Your task to perform on an android device: See recent photos Image 0: 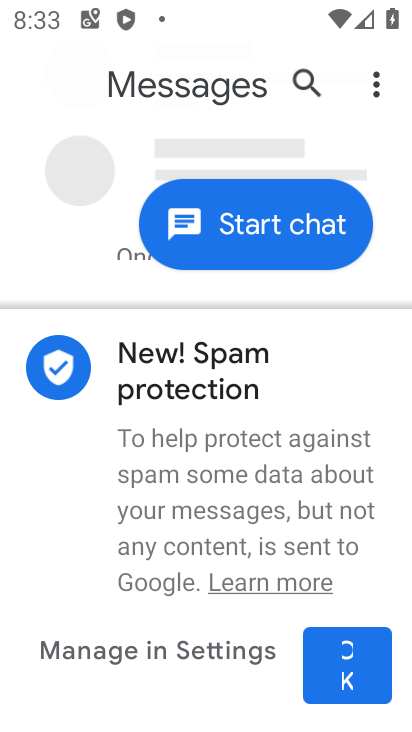
Step 0: press home button
Your task to perform on an android device: See recent photos Image 1: 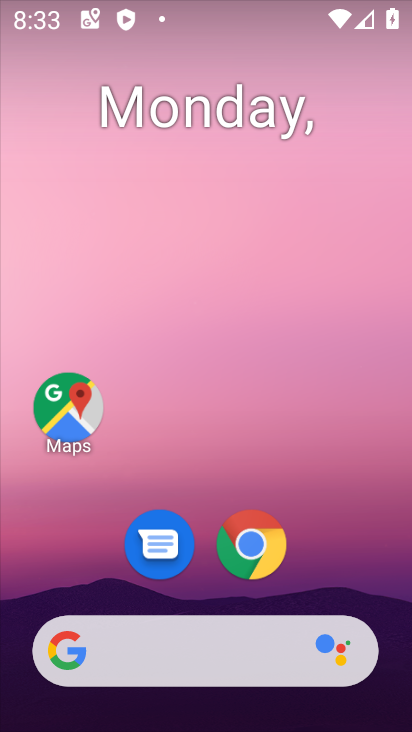
Step 1: drag from (341, 562) to (246, 56)
Your task to perform on an android device: See recent photos Image 2: 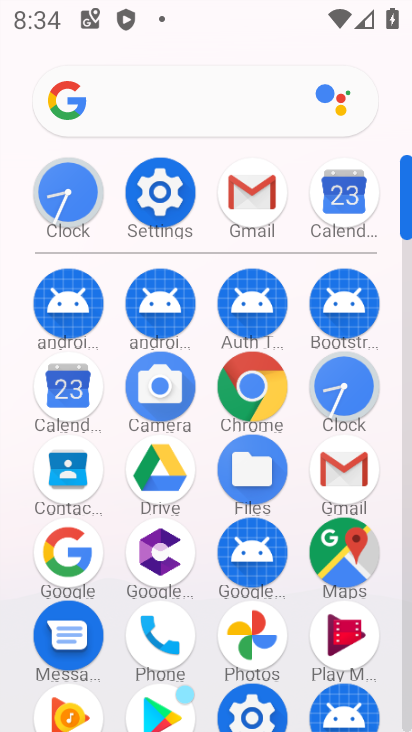
Step 2: click (233, 622)
Your task to perform on an android device: See recent photos Image 3: 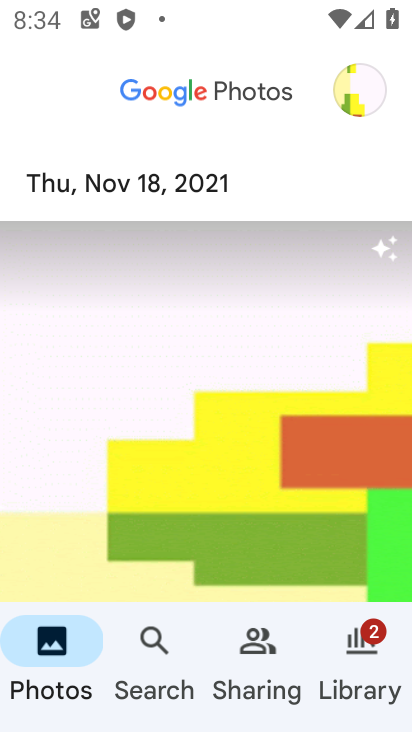
Step 3: drag from (145, 508) to (133, 198)
Your task to perform on an android device: See recent photos Image 4: 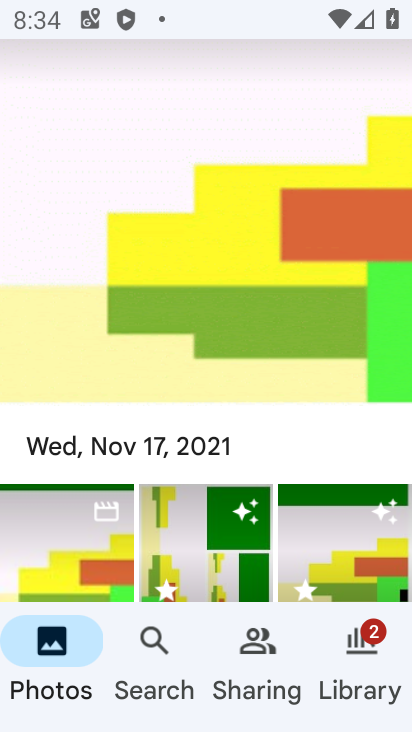
Step 4: drag from (234, 426) to (192, 49)
Your task to perform on an android device: See recent photos Image 5: 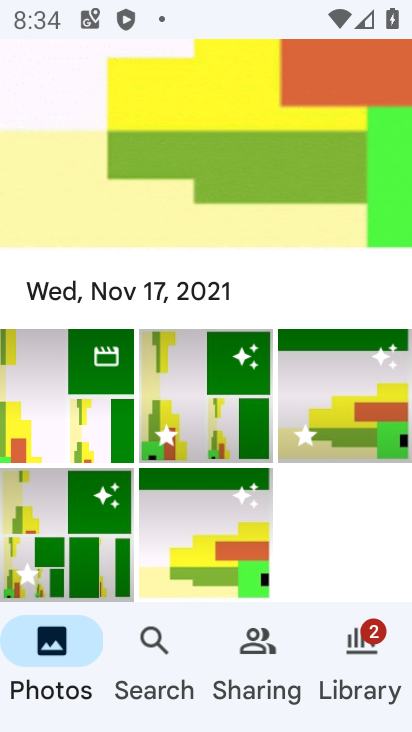
Step 5: click (71, 634)
Your task to perform on an android device: See recent photos Image 6: 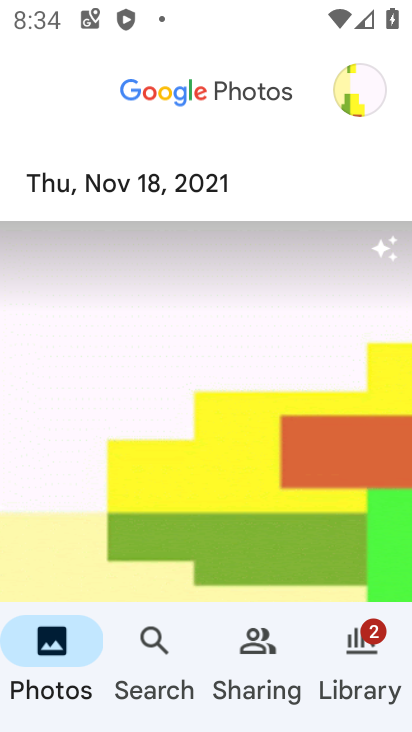
Step 6: task complete